Your task to perform on an android device: change the clock display to analog Image 0: 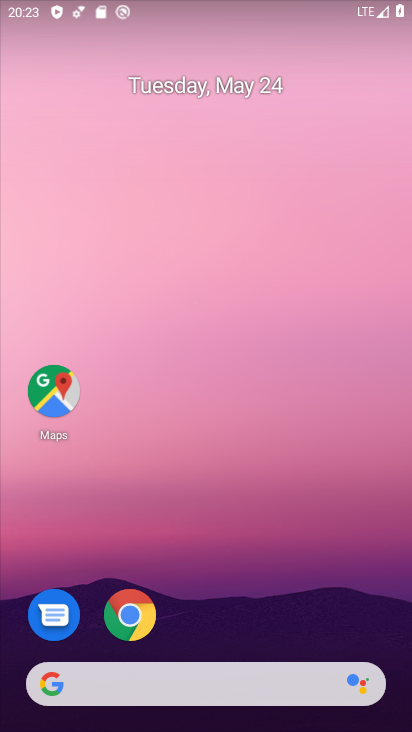
Step 0: drag from (250, 571) to (273, 208)
Your task to perform on an android device: change the clock display to analog Image 1: 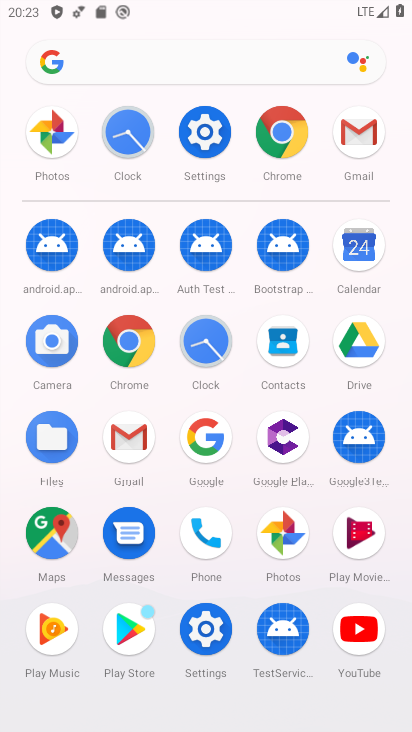
Step 1: click (194, 346)
Your task to perform on an android device: change the clock display to analog Image 2: 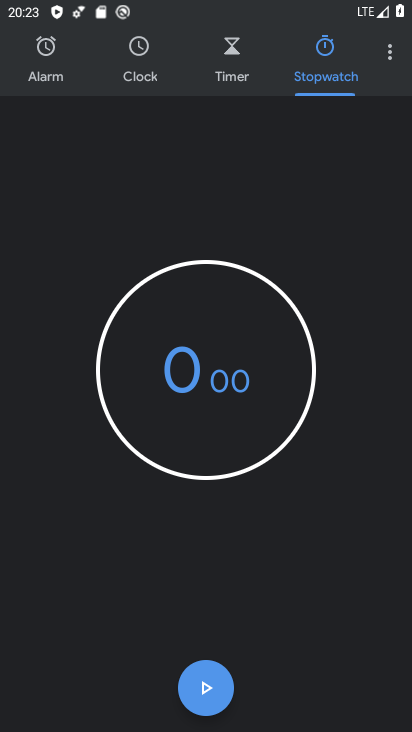
Step 2: click (378, 51)
Your task to perform on an android device: change the clock display to analog Image 3: 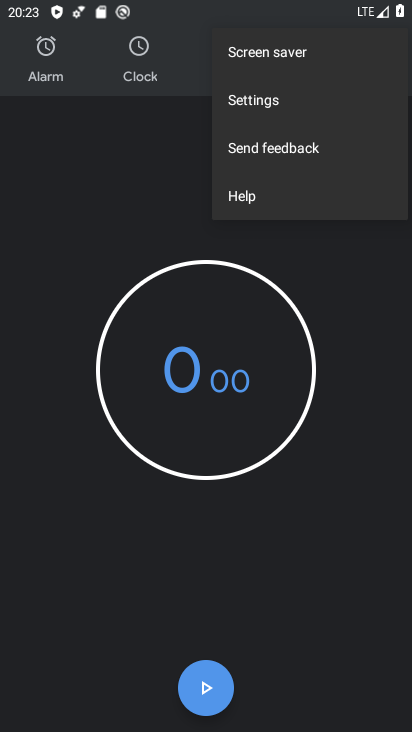
Step 3: click (258, 106)
Your task to perform on an android device: change the clock display to analog Image 4: 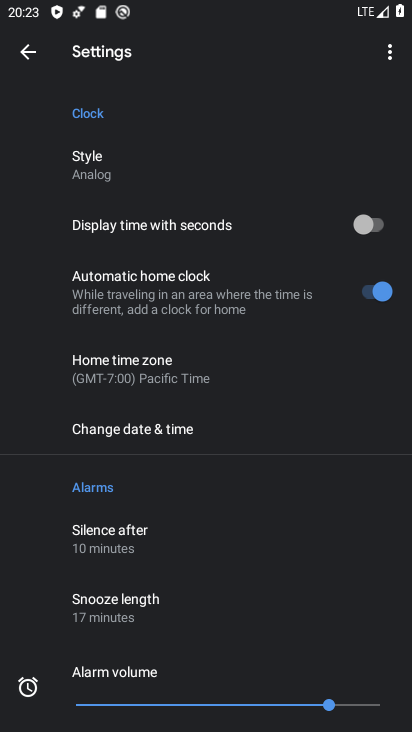
Step 4: click (113, 146)
Your task to perform on an android device: change the clock display to analog Image 5: 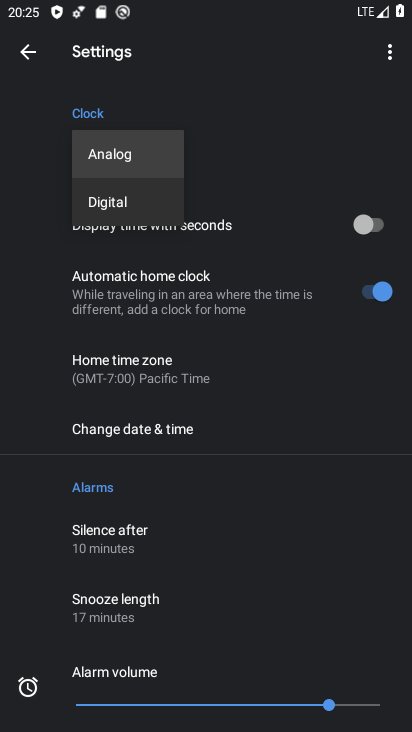
Step 5: task complete